Your task to perform on an android device: Open my contact list Image 0: 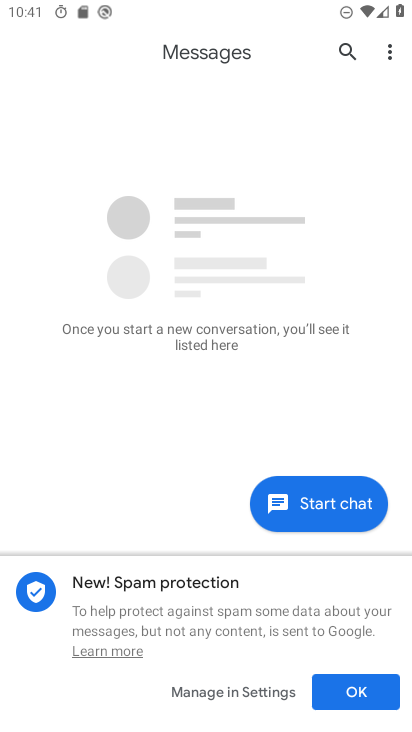
Step 0: press home button
Your task to perform on an android device: Open my contact list Image 1: 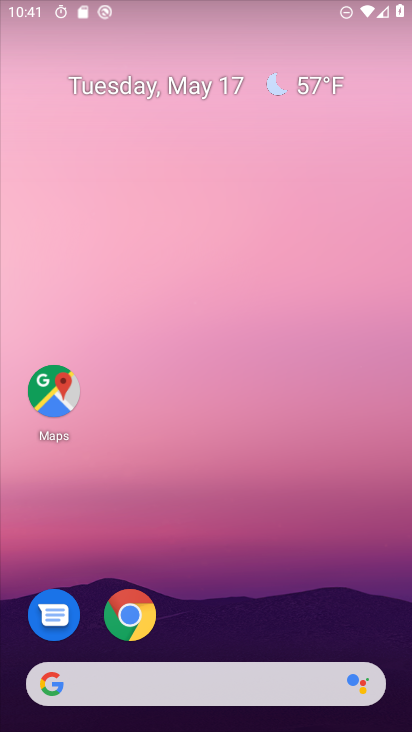
Step 1: drag from (282, 592) to (185, 55)
Your task to perform on an android device: Open my contact list Image 2: 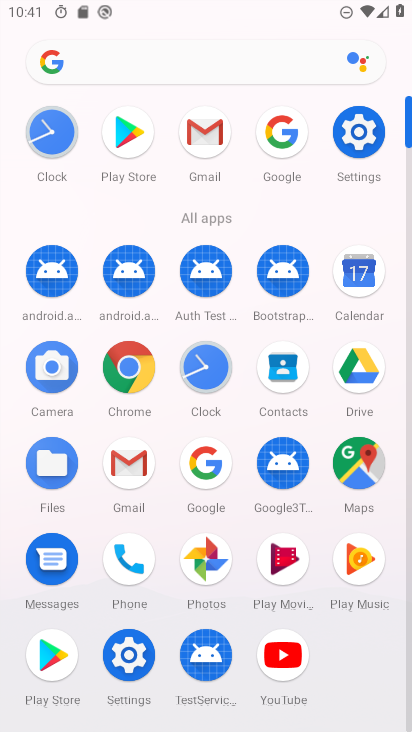
Step 2: click (290, 376)
Your task to perform on an android device: Open my contact list Image 3: 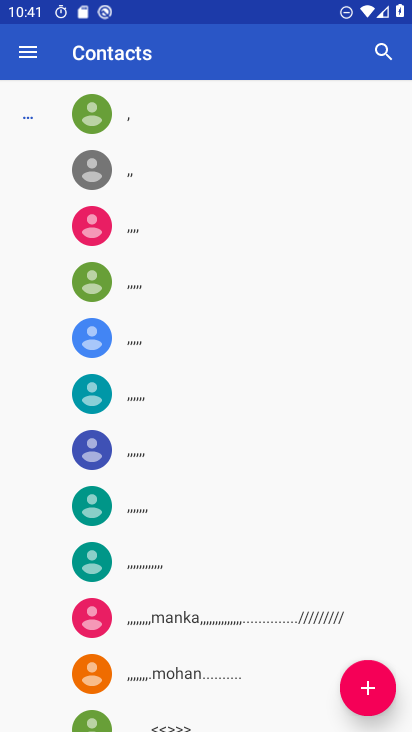
Step 3: task complete